Your task to perform on an android device: Open Google Image 0: 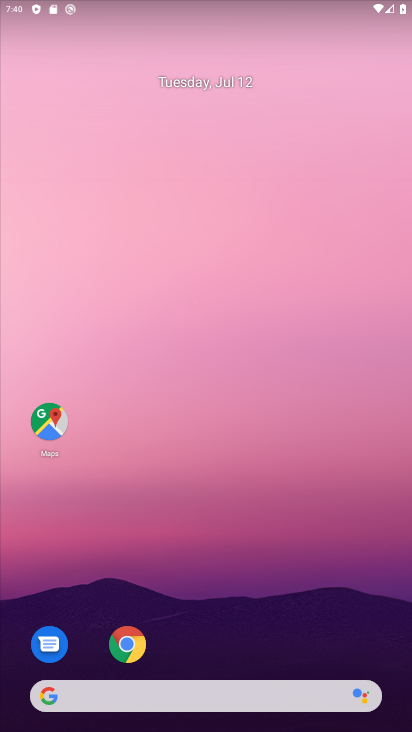
Step 0: drag from (185, 635) to (219, 324)
Your task to perform on an android device: Open Google Image 1: 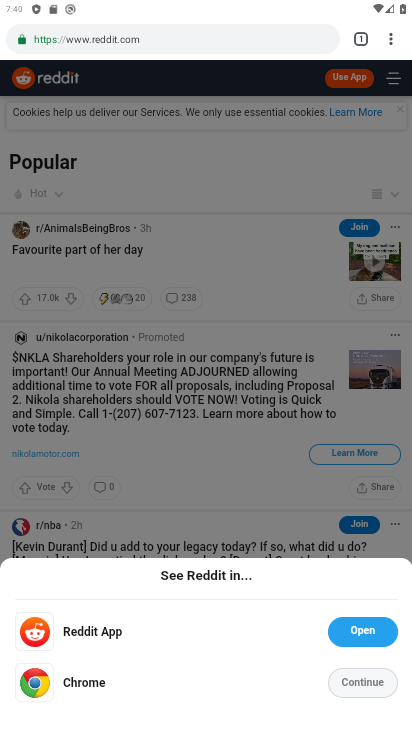
Step 1: drag from (248, 431) to (264, 195)
Your task to perform on an android device: Open Google Image 2: 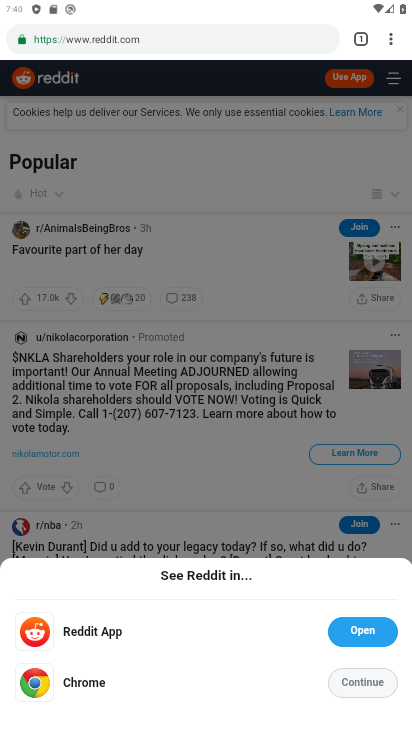
Step 2: press home button
Your task to perform on an android device: Open Google Image 3: 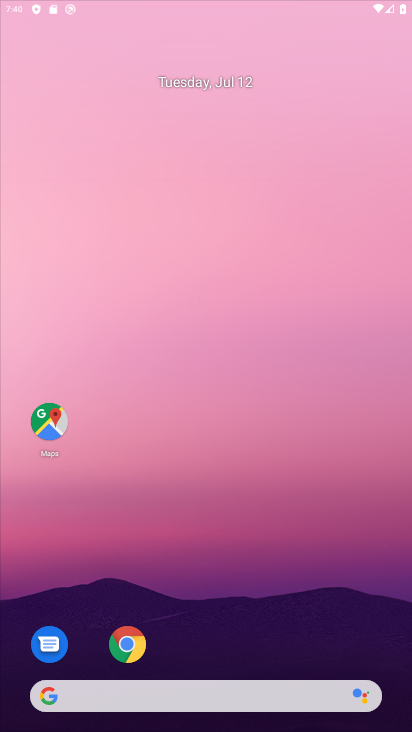
Step 3: drag from (182, 195) to (182, 33)
Your task to perform on an android device: Open Google Image 4: 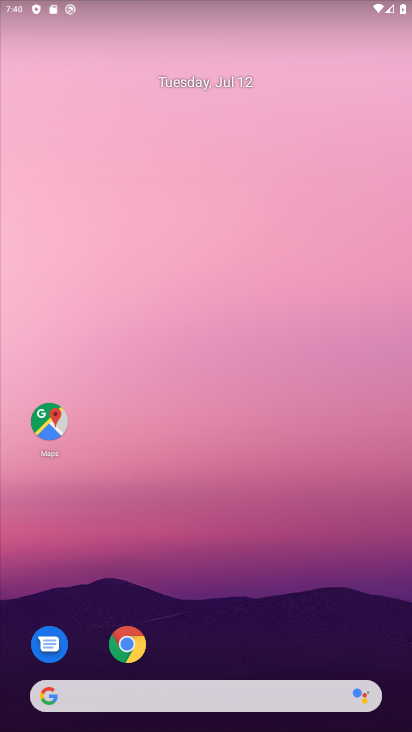
Step 4: drag from (211, 639) to (259, 2)
Your task to perform on an android device: Open Google Image 5: 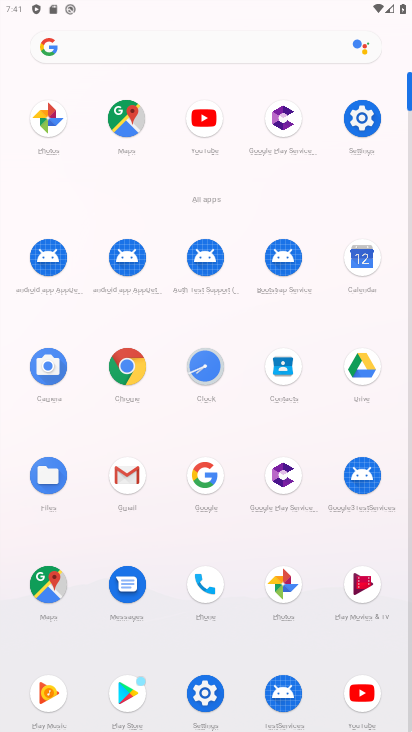
Step 5: click (219, 481)
Your task to perform on an android device: Open Google Image 6: 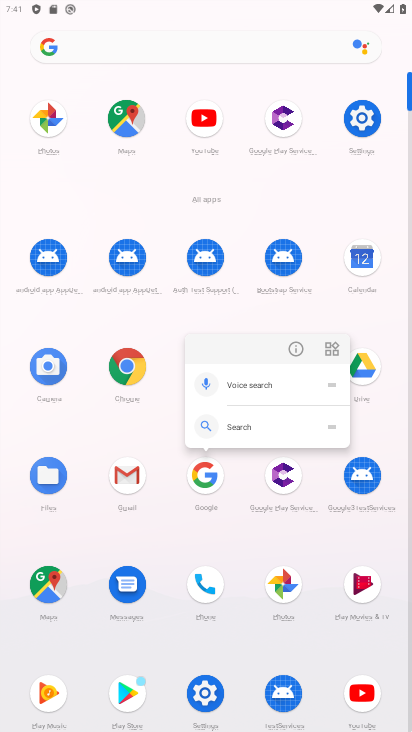
Step 6: click (292, 347)
Your task to perform on an android device: Open Google Image 7: 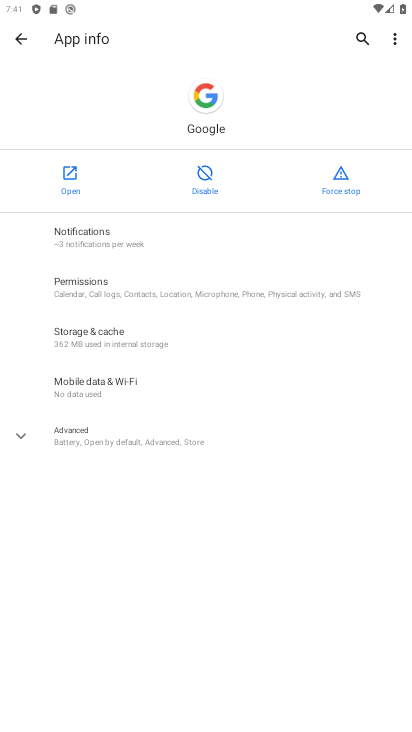
Step 7: click (60, 185)
Your task to perform on an android device: Open Google Image 8: 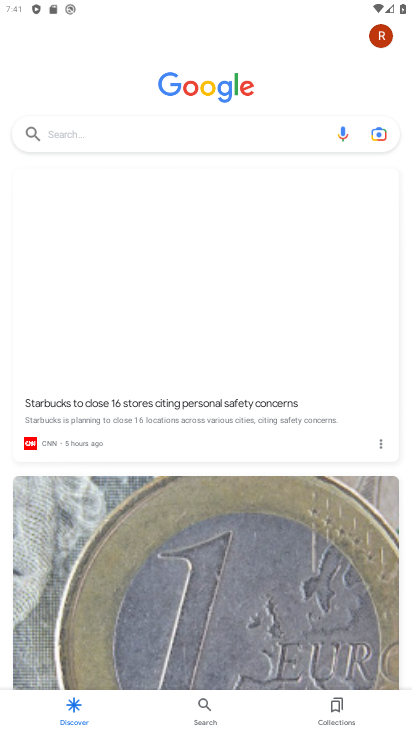
Step 8: task complete